Your task to perform on an android device: set the timer Image 0: 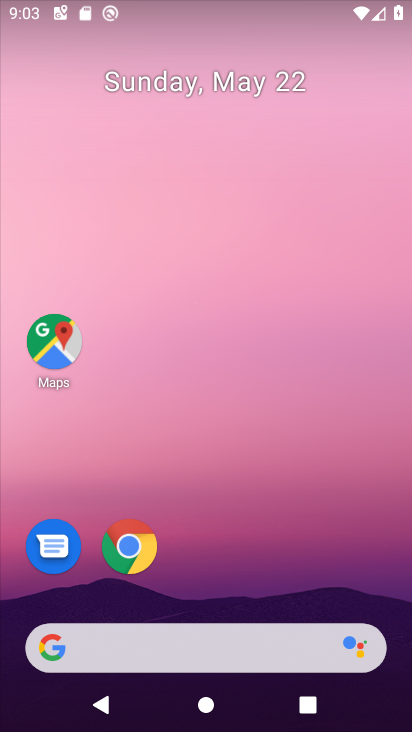
Step 0: drag from (377, 560) to (375, 135)
Your task to perform on an android device: set the timer Image 1: 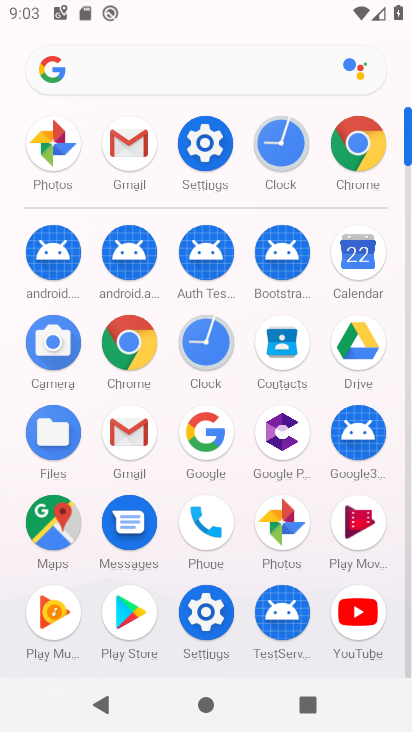
Step 1: click (217, 154)
Your task to perform on an android device: set the timer Image 2: 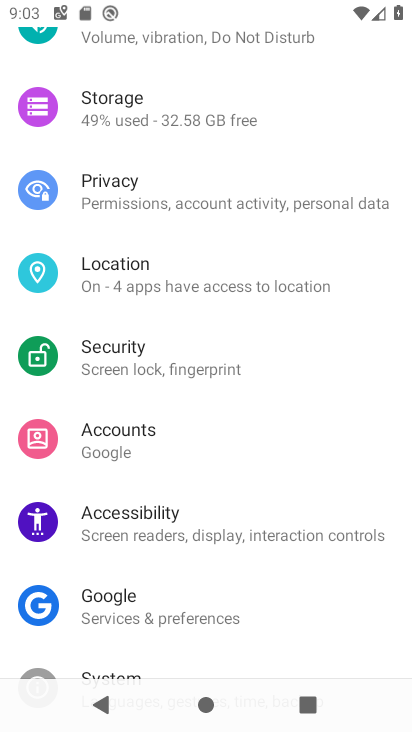
Step 2: drag from (340, 578) to (345, 386)
Your task to perform on an android device: set the timer Image 3: 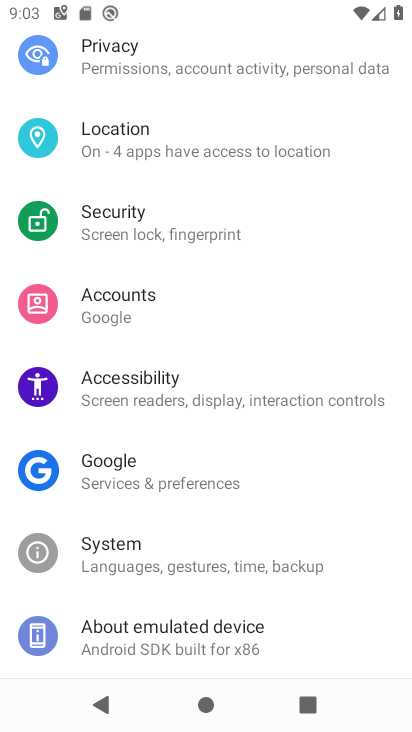
Step 3: drag from (355, 609) to (334, 435)
Your task to perform on an android device: set the timer Image 4: 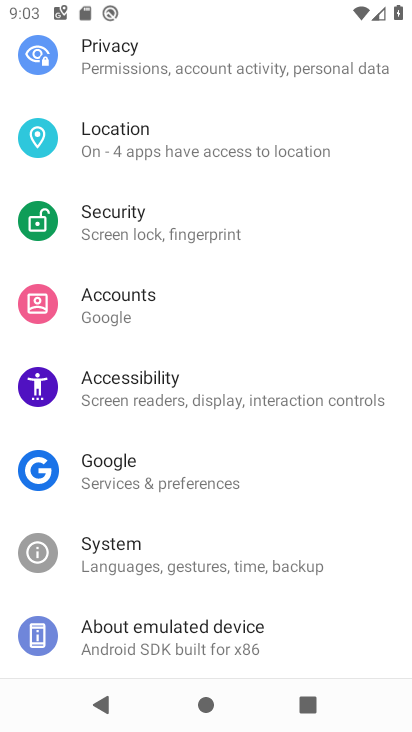
Step 4: drag from (358, 604) to (343, 445)
Your task to perform on an android device: set the timer Image 5: 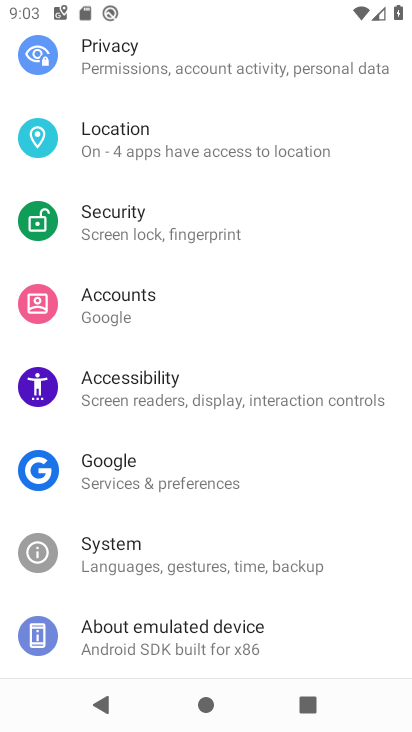
Step 5: drag from (354, 296) to (349, 492)
Your task to perform on an android device: set the timer Image 6: 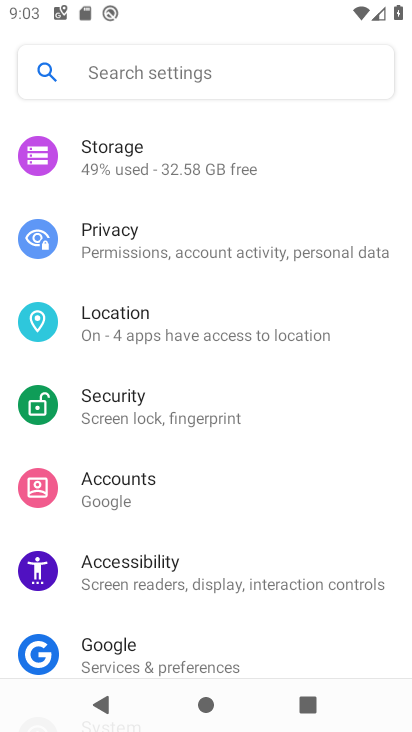
Step 6: drag from (340, 369) to (335, 450)
Your task to perform on an android device: set the timer Image 7: 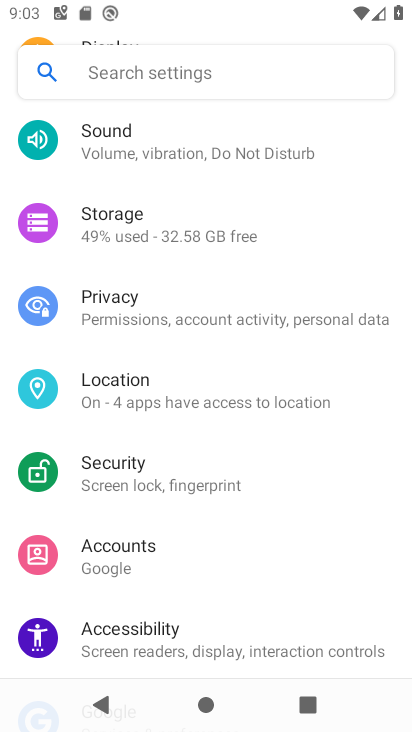
Step 7: drag from (351, 201) to (317, 468)
Your task to perform on an android device: set the timer Image 8: 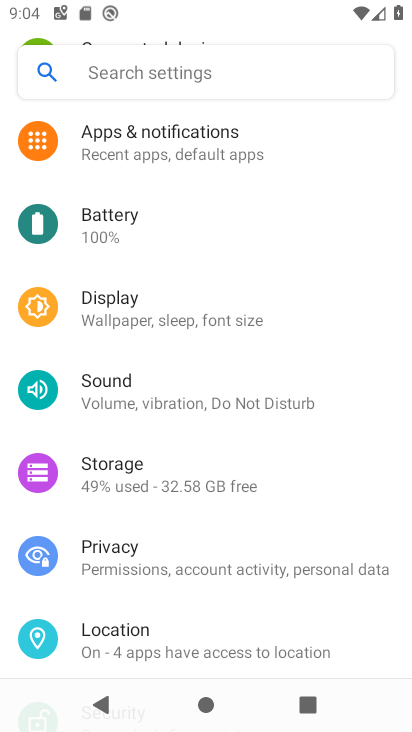
Step 8: drag from (329, 214) to (302, 471)
Your task to perform on an android device: set the timer Image 9: 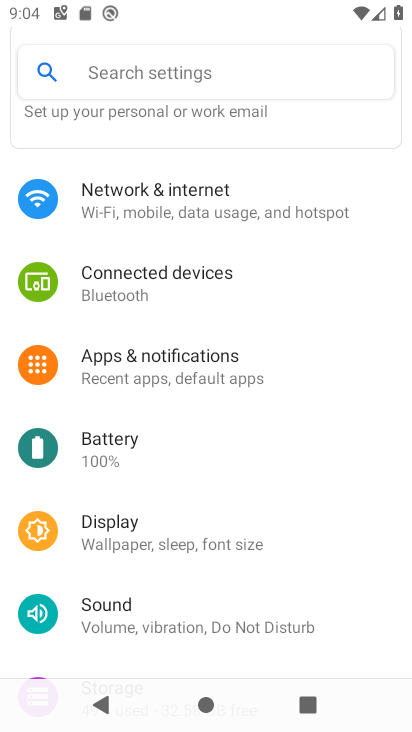
Step 9: drag from (343, 284) to (331, 444)
Your task to perform on an android device: set the timer Image 10: 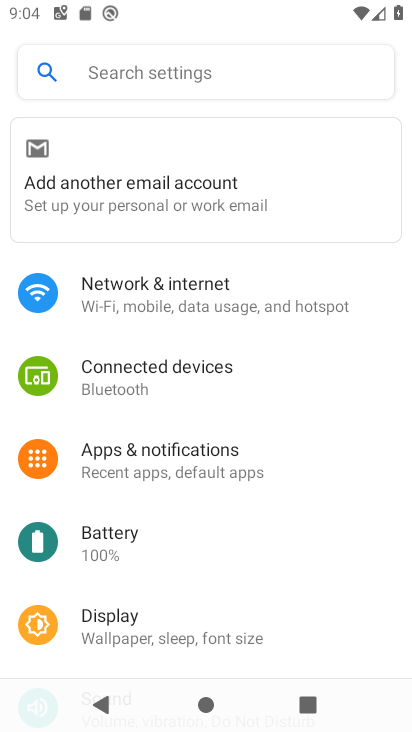
Step 10: drag from (344, 264) to (330, 453)
Your task to perform on an android device: set the timer Image 11: 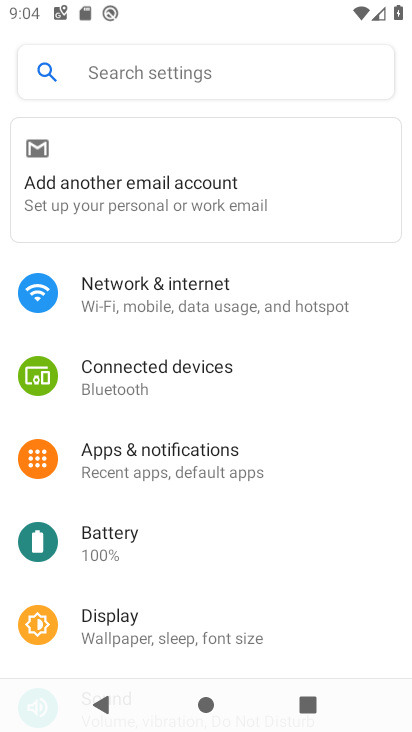
Step 11: drag from (343, 553) to (344, 329)
Your task to perform on an android device: set the timer Image 12: 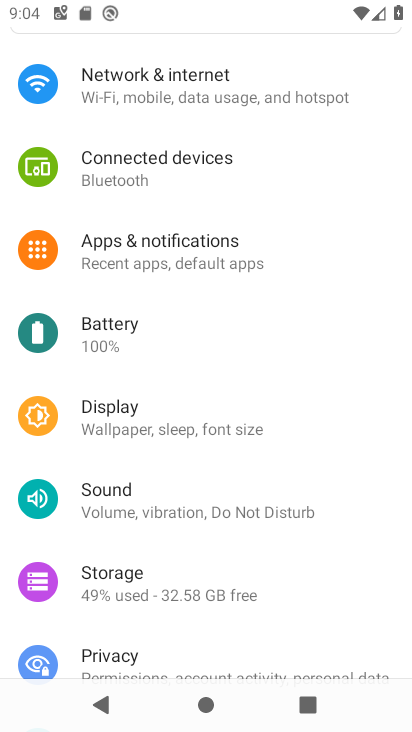
Step 12: drag from (350, 553) to (347, 330)
Your task to perform on an android device: set the timer Image 13: 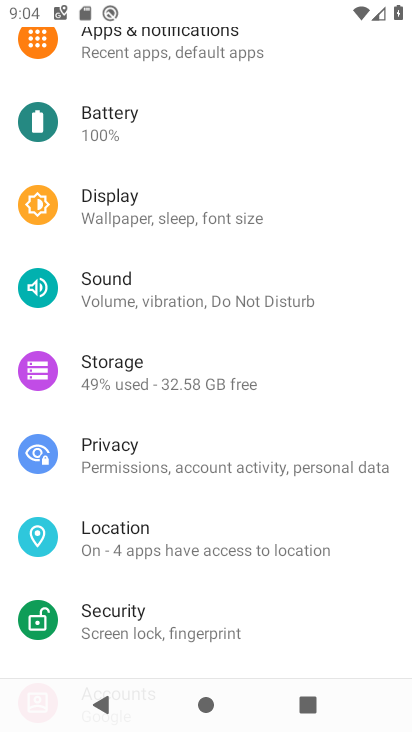
Step 13: click (270, 542)
Your task to perform on an android device: set the timer Image 14: 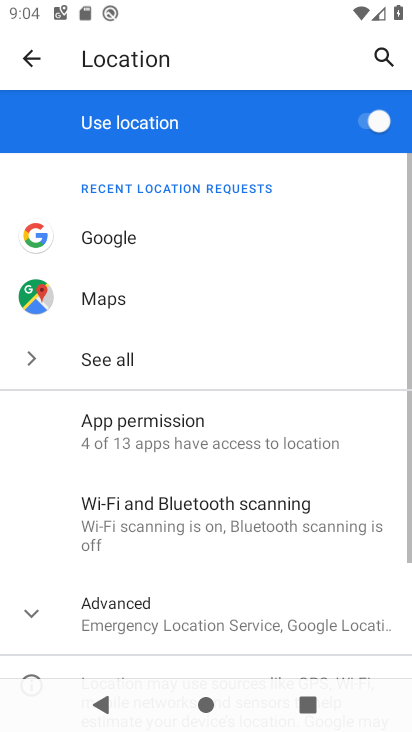
Step 14: drag from (294, 497) to (293, 355)
Your task to perform on an android device: set the timer Image 15: 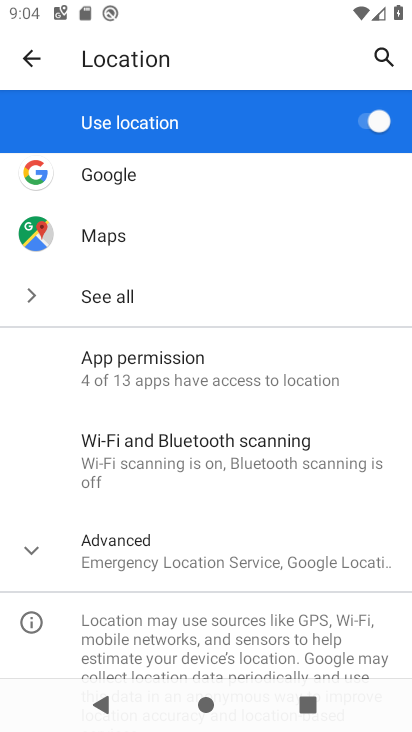
Step 15: press home button
Your task to perform on an android device: set the timer Image 16: 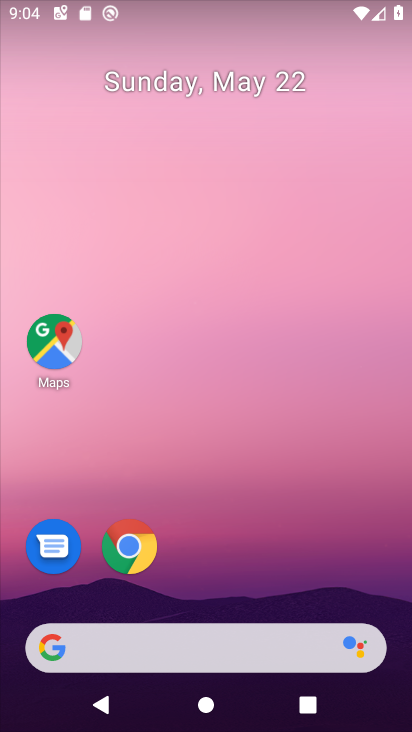
Step 16: drag from (374, 557) to (358, 131)
Your task to perform on an android device: set the timer Image 17: 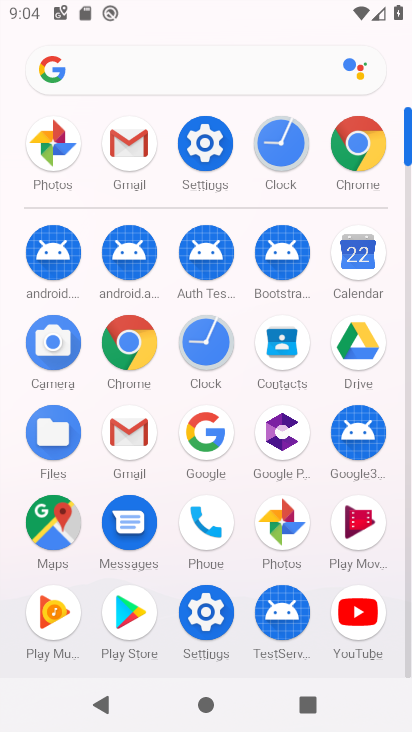
Step 17: click (218, 340)
Your task to perform on an android device: set the timer Image 18: 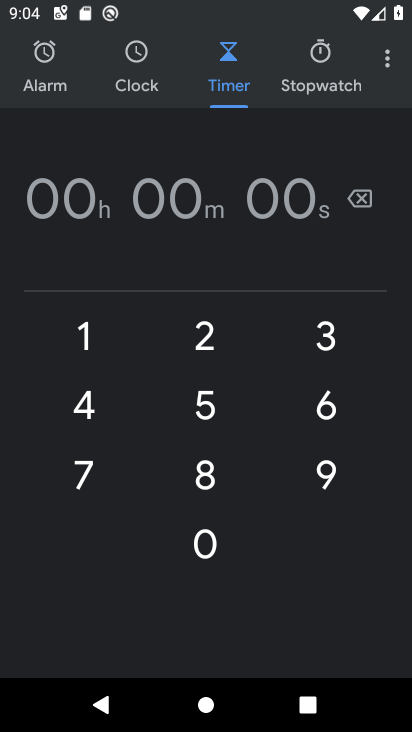
Step 18: click (209, 411)
Your task to perform on an android device: set the timer Image 19: 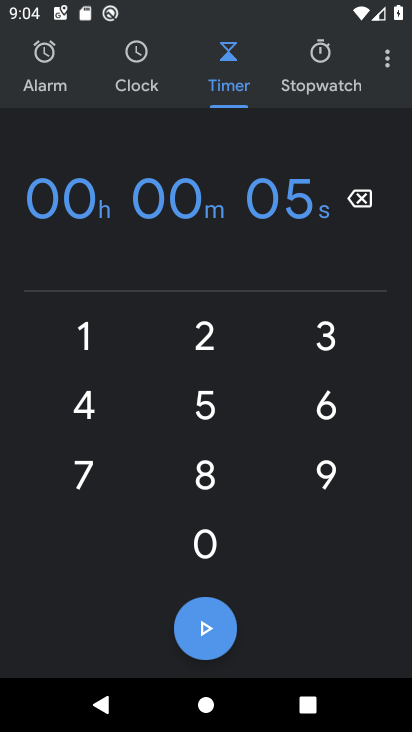
Step 19: task complete